Your task to perform on an android device: toggle pop-ups in chrome Image 0: 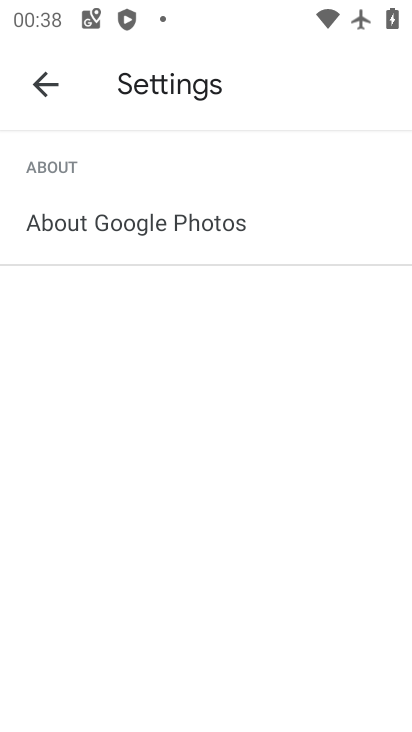
Step 0: press home button
Your task to perform on an android device: toggle pop-ups in chrome Image 1: 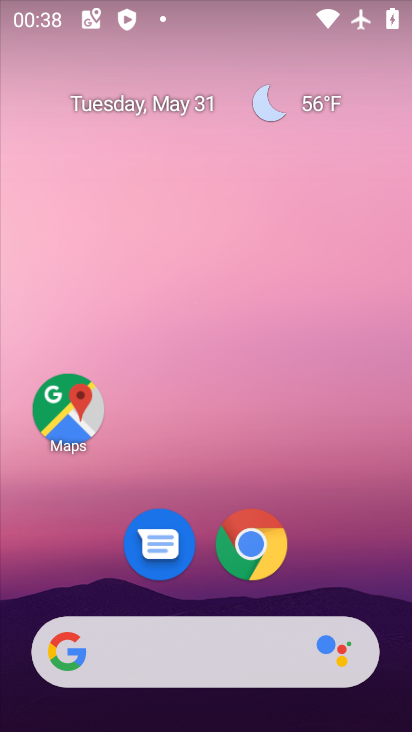
Step 1: click (249, 550)
Your task to perform on an android device: toggle pop-ups in chrome Image 2: 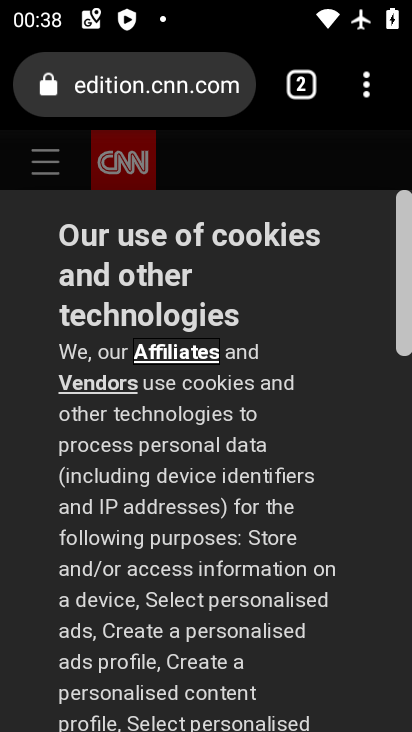
Step 2: click (369, 80)
Your task to perform on an android device: toggle pop-ups in chrome Image 3: 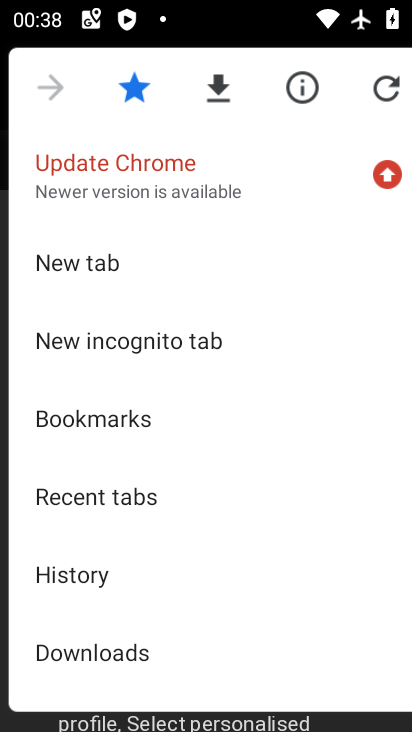
Step 3: drag from (249, 503) to (195, 110)
Your task to perform on an android device: toggle pop-ups in chrome Image 4: 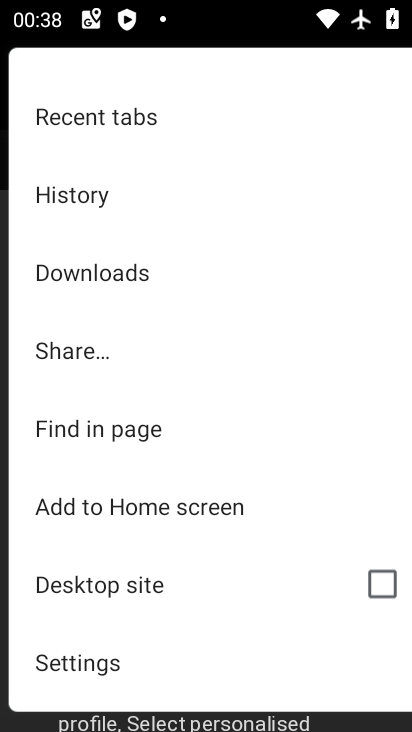
Step 4: click (94, 672)
Your task to perform on an android device: toggle pop-ups in chrome Image 5: 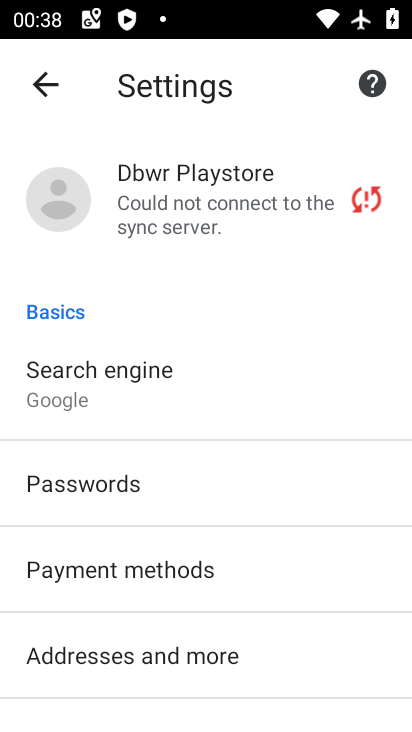
Step 5: drag from (288, 591) to (268, 336)
Your task to perform on an android device: toggle pop-ups in chrome Image 6: 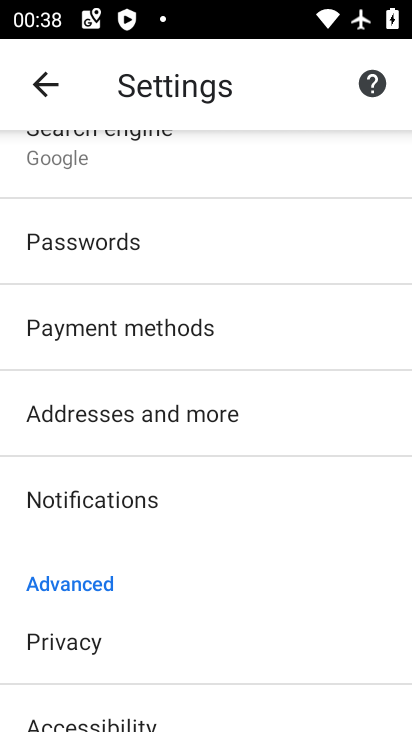
Step 6: drag from (251, 574) to (250, 328)
Your task to perform on an android device: toggle pop-ups in chrome Image 7: 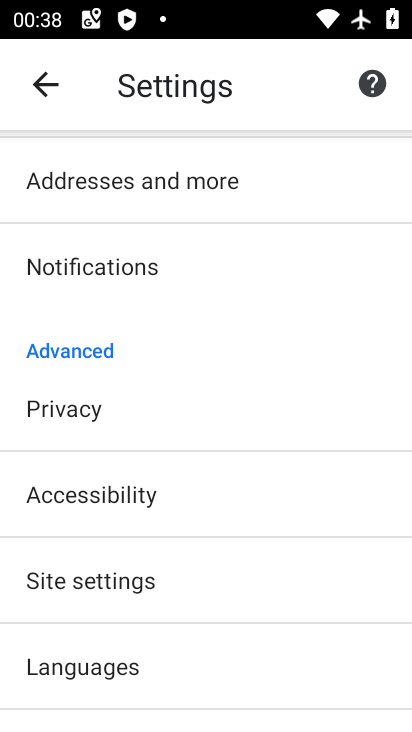
Step 7: click (98, 574)
Your task to perform on an android device: toggle pop-ups in chrome Image 8: 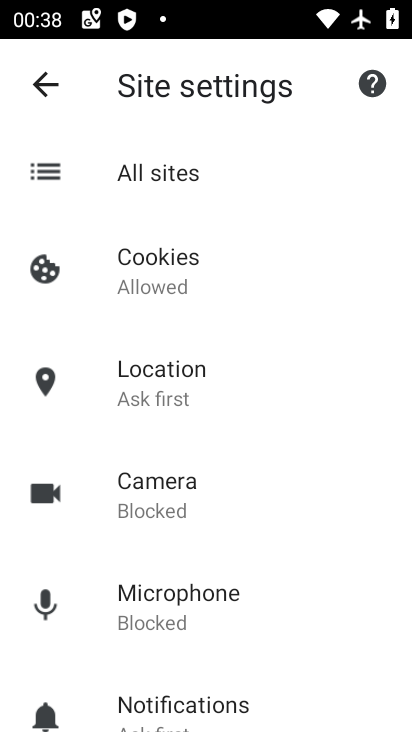
Step 8: drag from (249, 624) to (244, 255)
Your task to perform on an android device: toggle pop-ups in chrome Image 9: 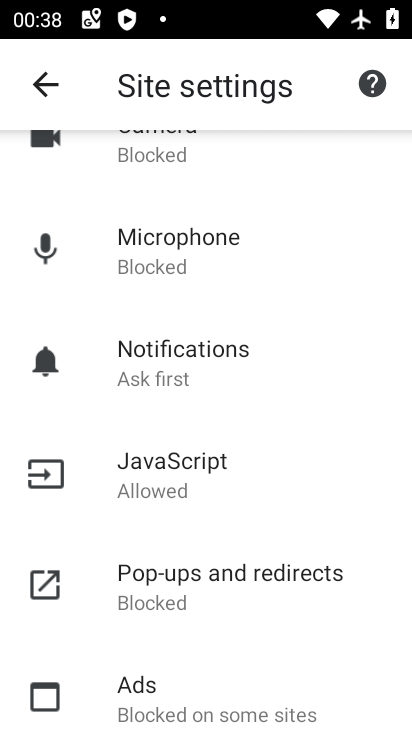
Step 9: click (172, 587)
Your task to perform on an android device: toggle pop-ups in chrome Image 10: 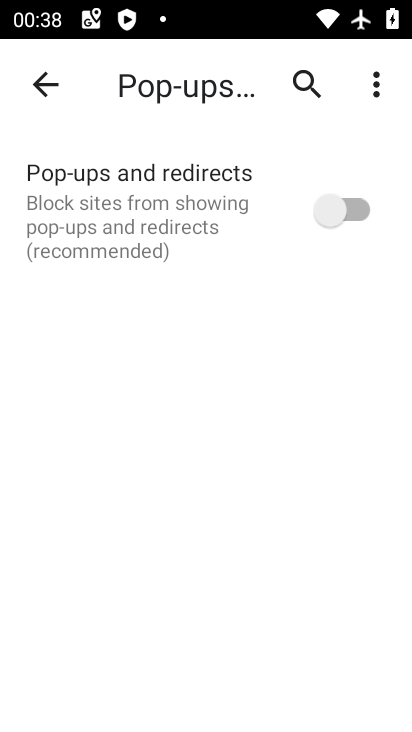
Step 10: click (334, 210)
Your task to perform on an android device: toggle pop-ups in chrome Image 11: 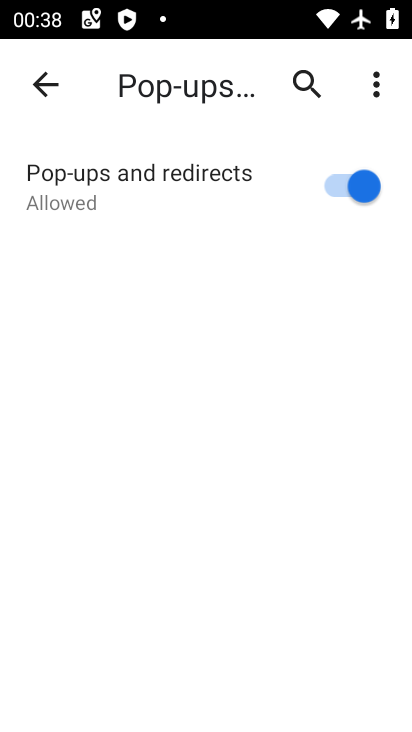
Step 11: task complete